Your task to perform on an android device: empty trash in google photos Image 0: 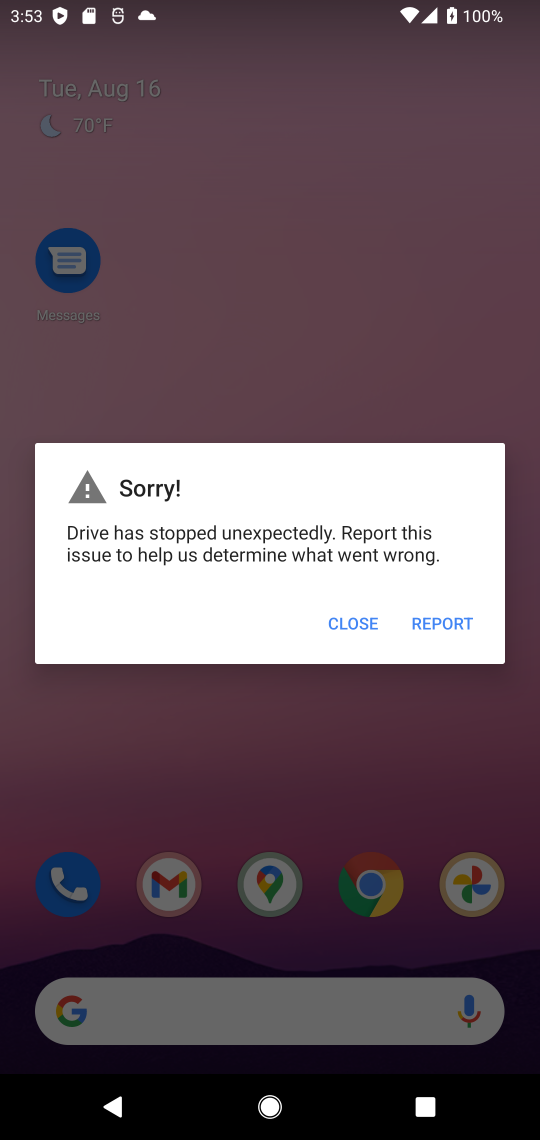
Step 0: press home button
Your task to perform on an android device: empty trash in google photos Image 1: 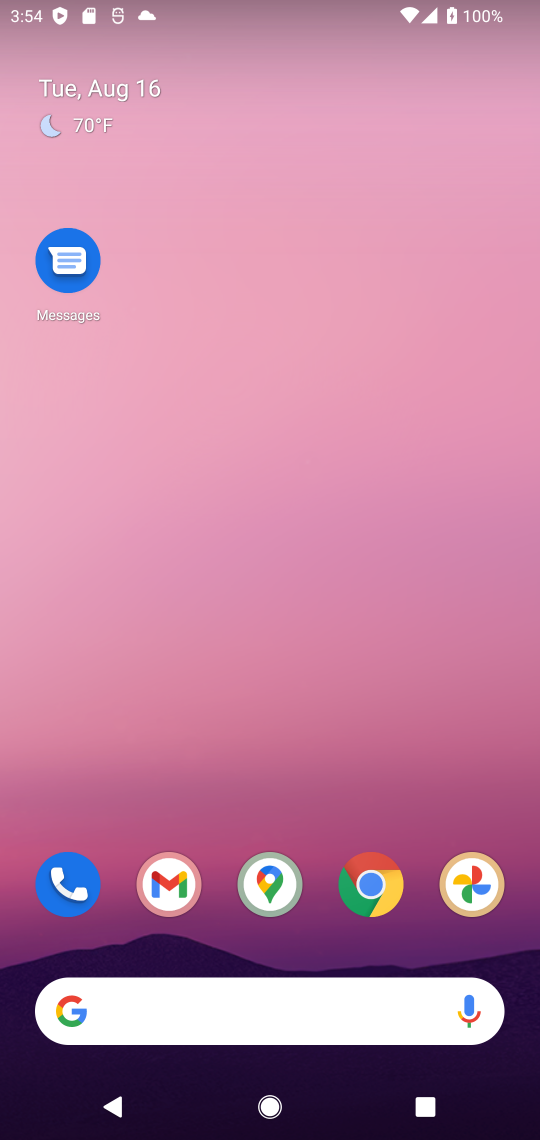
Step 1: click (465, 876)
Your task to perform on an android device: empty trash in google photos Image 2: 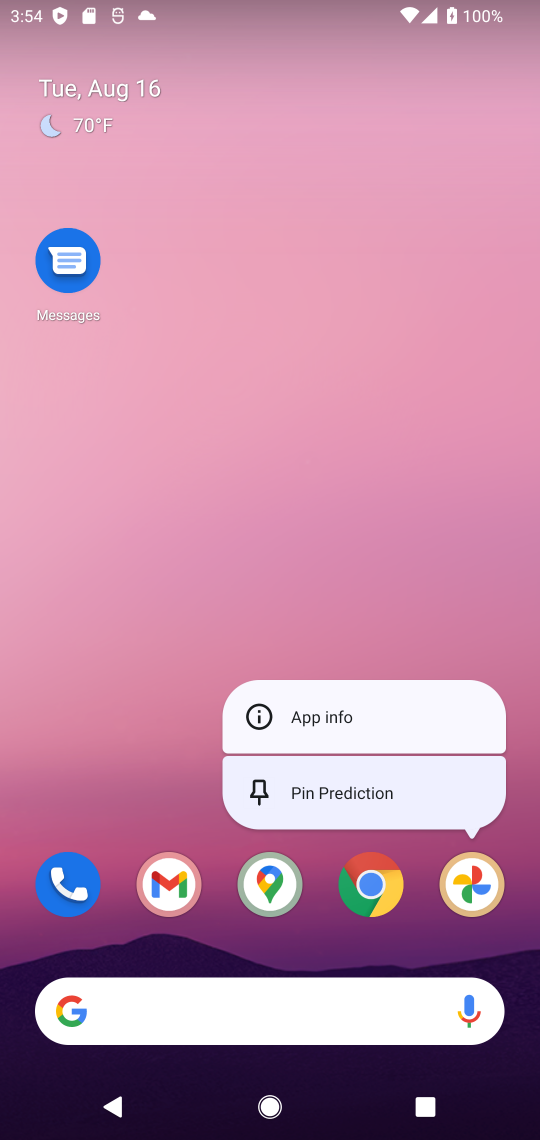
Step 2: click (465, 876)
Your task to perform on an android device: empty trash in google photos Image 3: 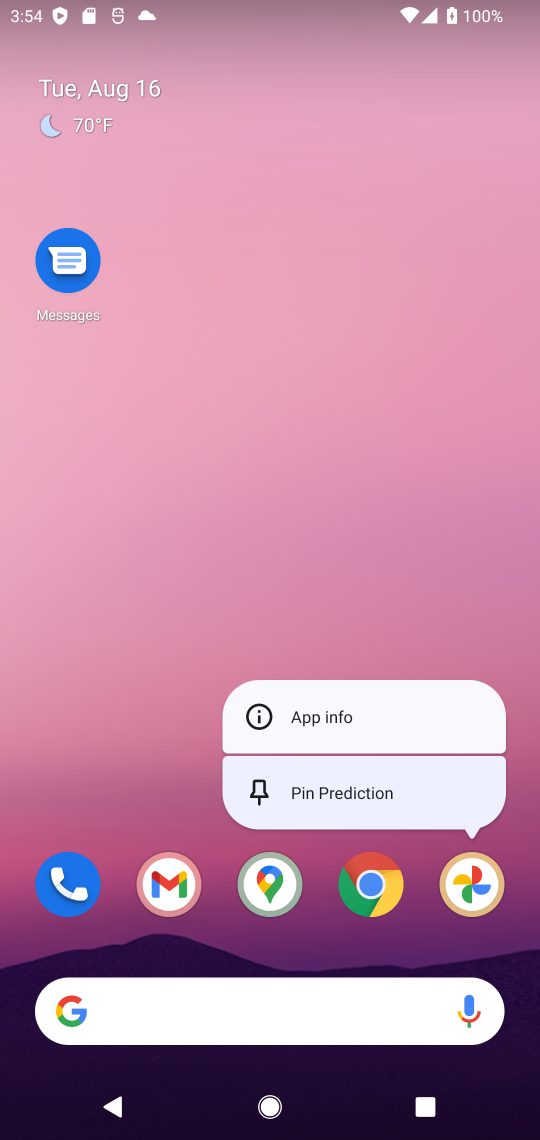
Step 3: click (464, 871)
Your task to perform on an android device: empty trash in google photos Image 4: 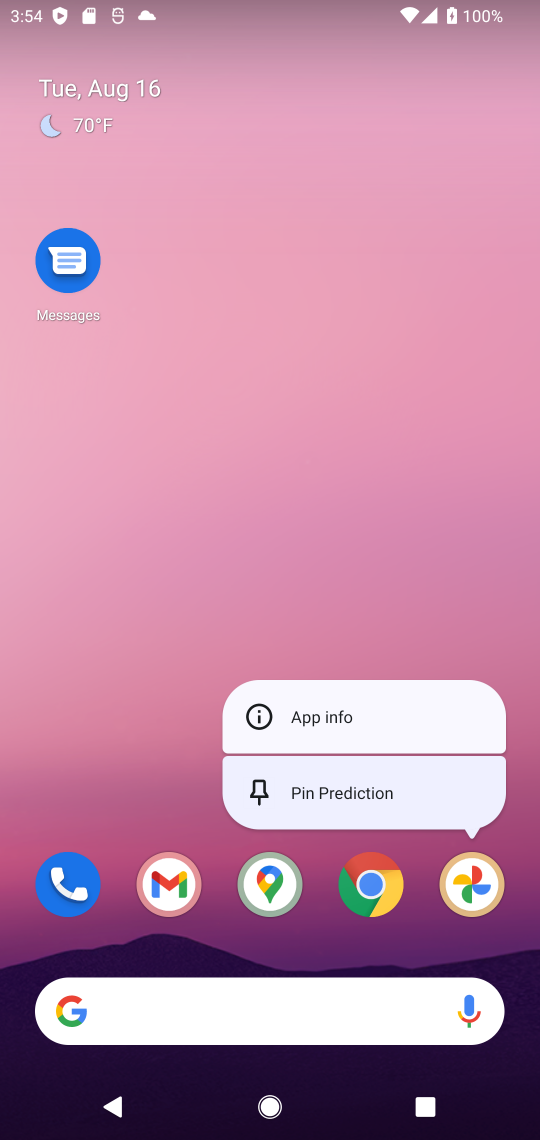
Step 4: task complete